Your task to perform on an android device: turn on airplane mode Image 0: 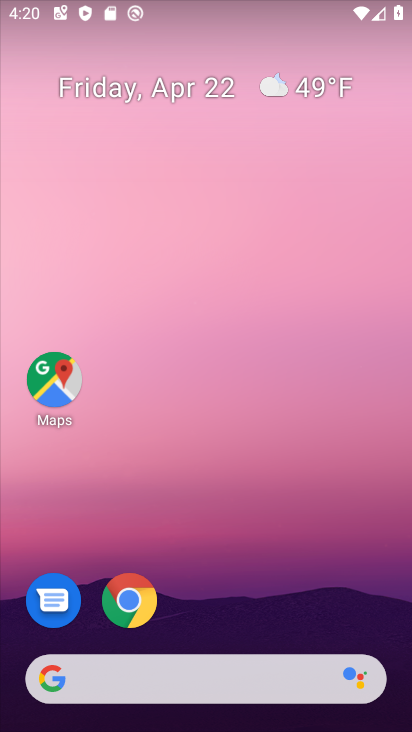
Step 0: drag from (235, 594) to (290, 27)
Your task to perform on an android device: turn on airplane mode Image 1: 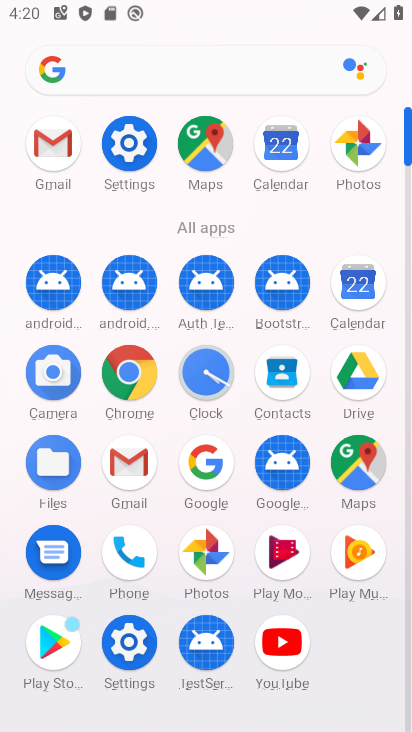
Step 1: click (127, 137)
Your task to perform on an android device: turn on airplane mode Image 2: 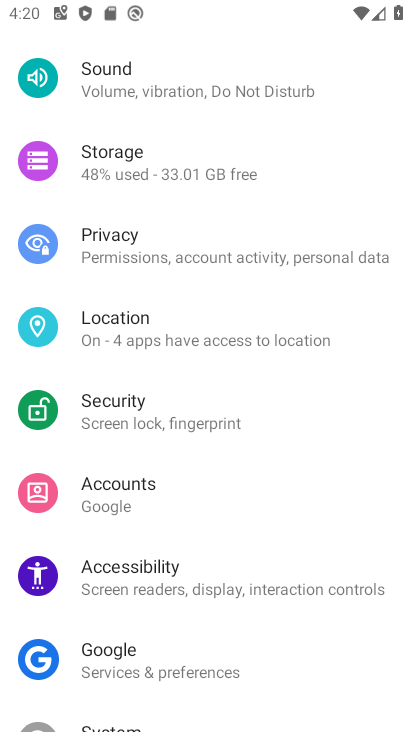
Step 2: drag from (204, 168) to (204, 305)
Your task to perform on an android device: turn on airplane mode Image 3: 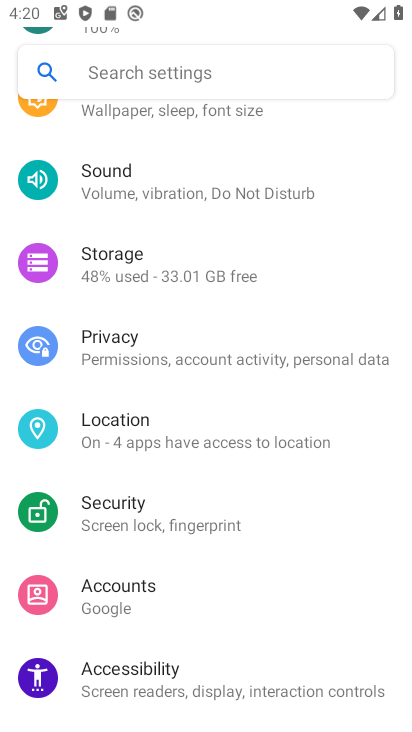
Step 3: drag from (243, 216) to (224, 346)
Your task to perform on an android device: turn on airplane mode Image 4: 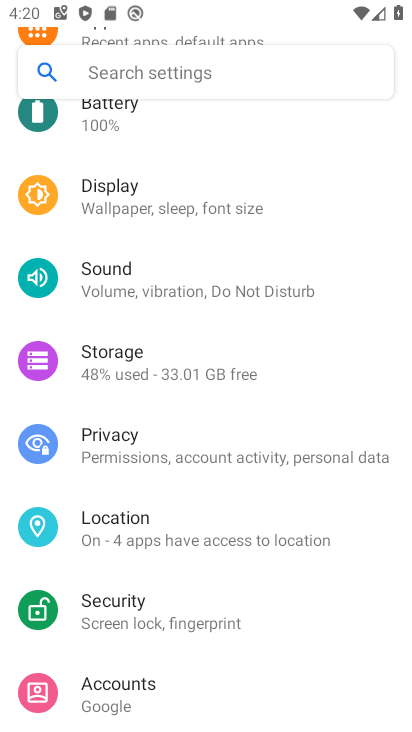
Step 4: drag from (232, 178) to (223, 316)
Your task to perform on an android device: turn on airplane mode Image 5: 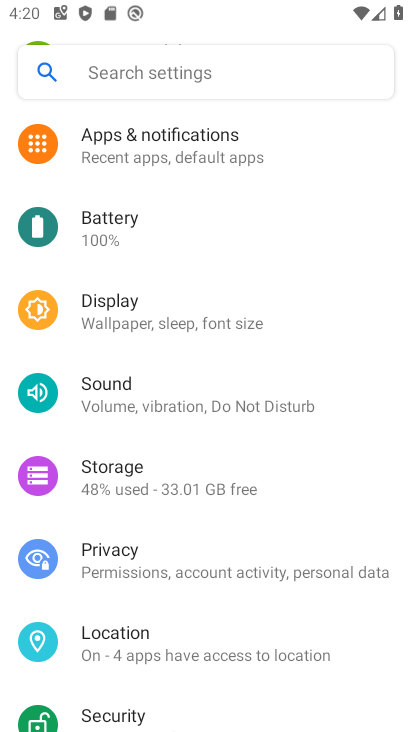
Step 5: drag from (208, 221) to (220, 352)
Your task to perform on an android device: turn on airplane mode Image 6: 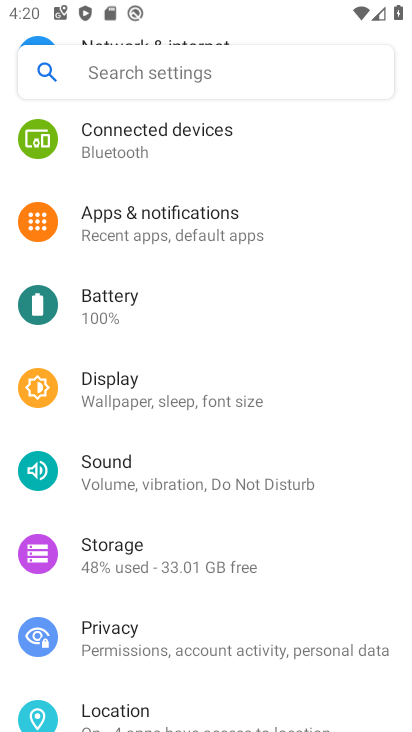
Step 6: drag from (208, 165) to (222, 301)
Your task to perform on an android device: turn on airplane mode Image 7: 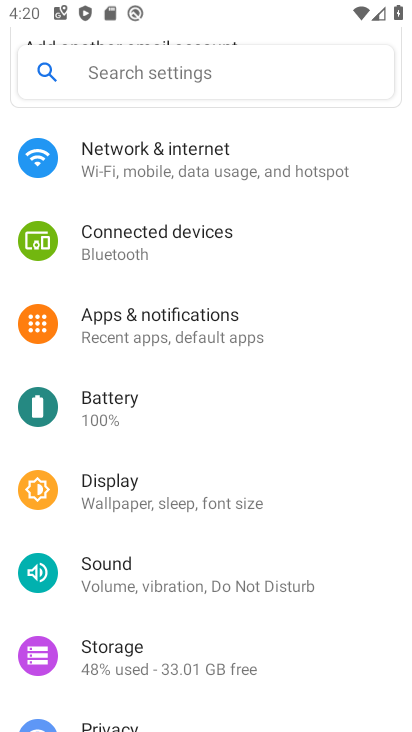
Step 7: click (174, 155)
Your task to perform on an android device: turn on airplane mode Image 8: 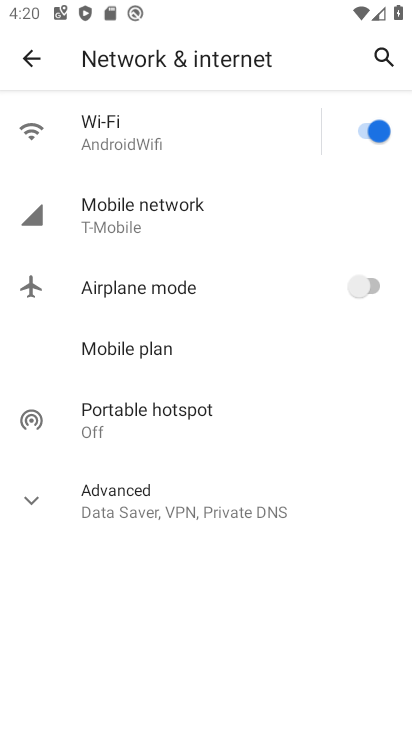
Step 8: click (370, 293)
Your task to perform on an android device: turn on airplane mode Image 9: 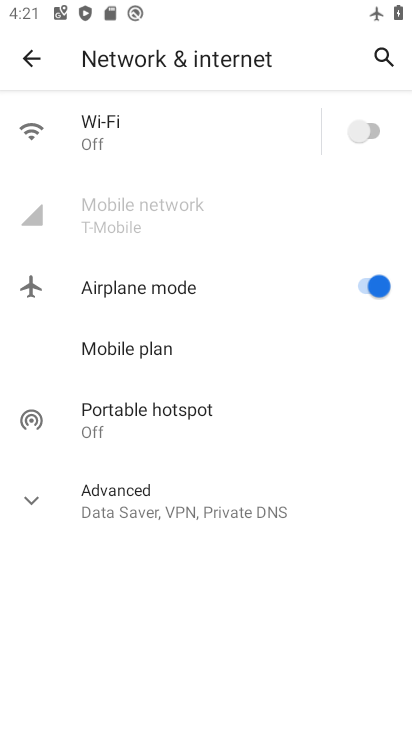
Step 9: task complete